Your task to perform on an android device: Open Reddit.com Image 0: 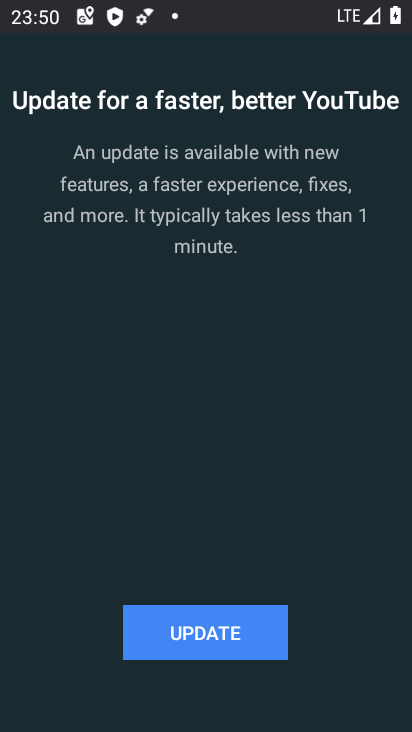
Step 0: press home button
Your task to perform on an android device: Open Reddit.com Image 1: 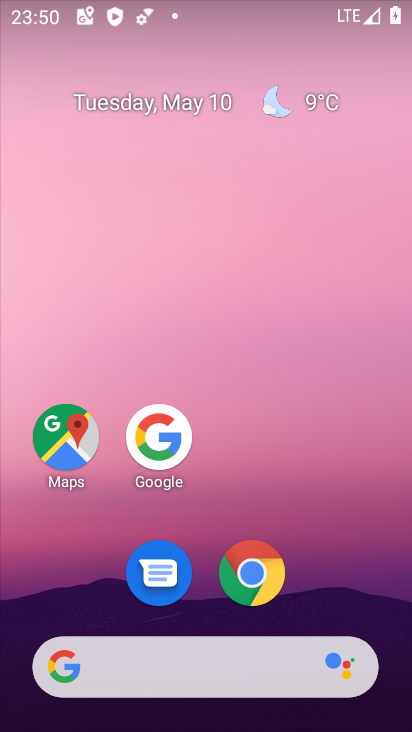
Step 1: click (238, 580)
Your task to perform on an android device: Open Reddit.com Image 2: 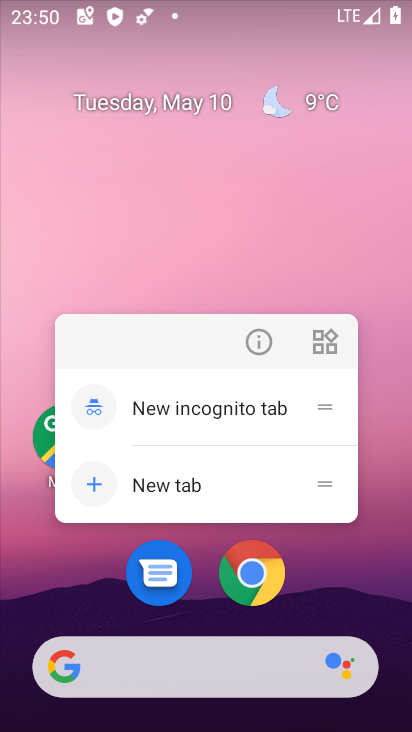
Step 2: click (261, 571)
Your task to perform on an android device: Open Reddit.com Image 3: 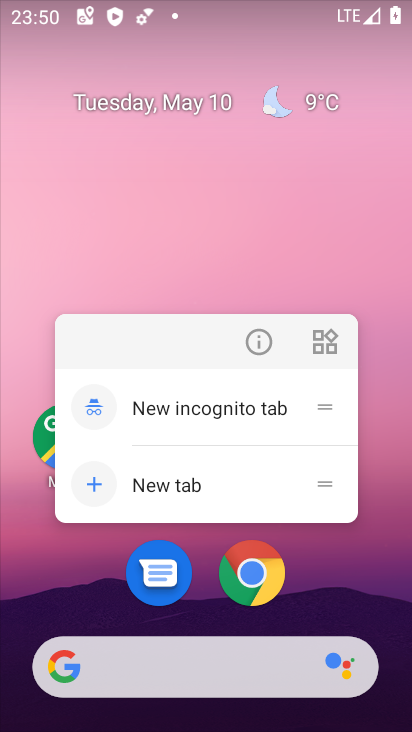
Step 3: click (253, 578)
Your task to perform on an android device: Open Reddit.com Image 4: 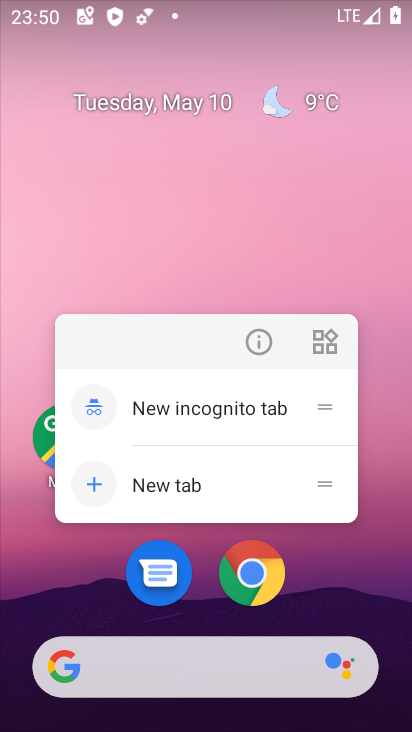
Step 4: click (249, 582)
Your task to perform on an android device: Open Reddit.com Image 5: 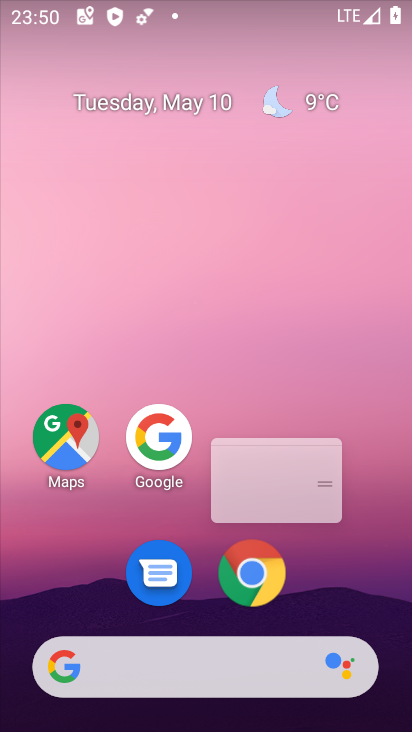
Step 5: drag from (193, 672) to (312, 99)
Your task to perform on an android device: Open Reddit.com Image 6: 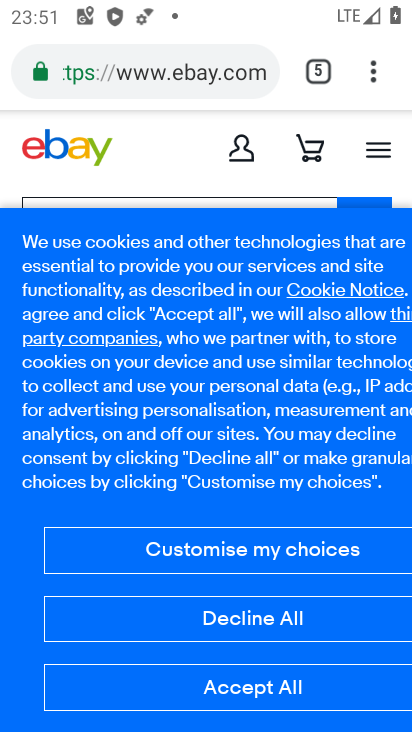
Step 6: drag from (374, 80) to (223, 139)
Your task to perform on an android device: Open Reddit.com Image 7: 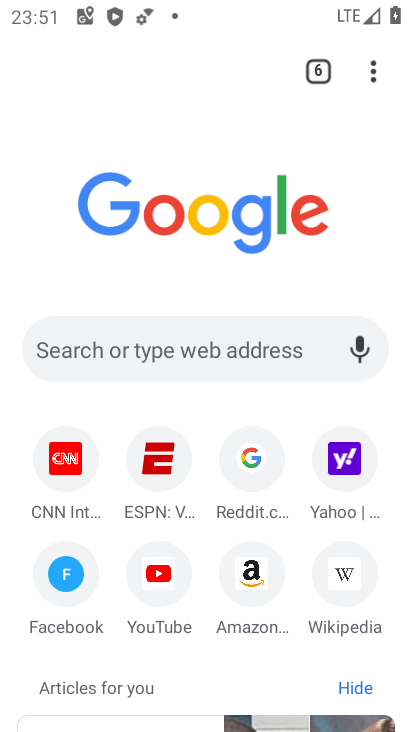
Step 7: click (149, 343)
Your task to perform on an android device: Open Reddit.com Image 8: 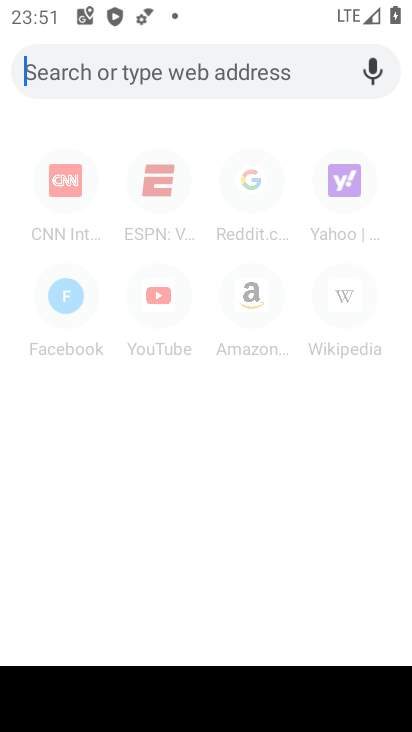
Step 8: type "reddit.com"
Your task to perform on an android device: Open Reddit.com Image 9: 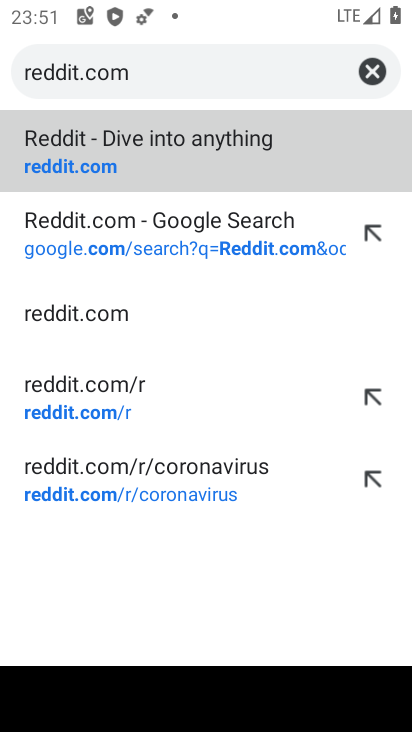
Step 9: click (162, 148)
Your task to perform on an android device: Open Reddit.com Image 10: 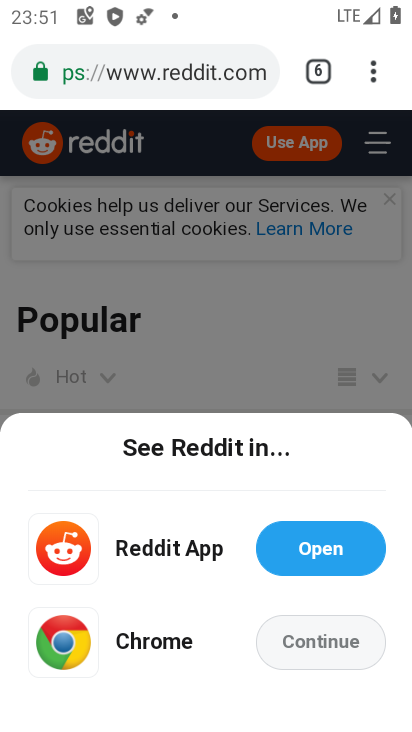
Step 10: task complete